Your task to perform on an android device: turn off sleep mode Image 0: 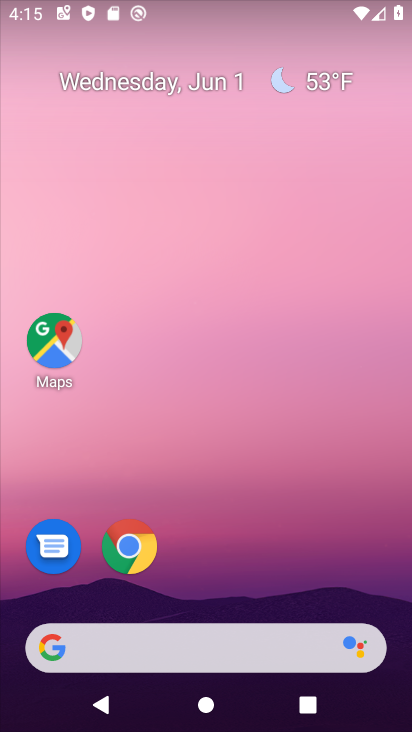
Step 0: drag from (286, 526) to (193, 131)
Your task to perform on an android device: turn off sleep mode Image 1: 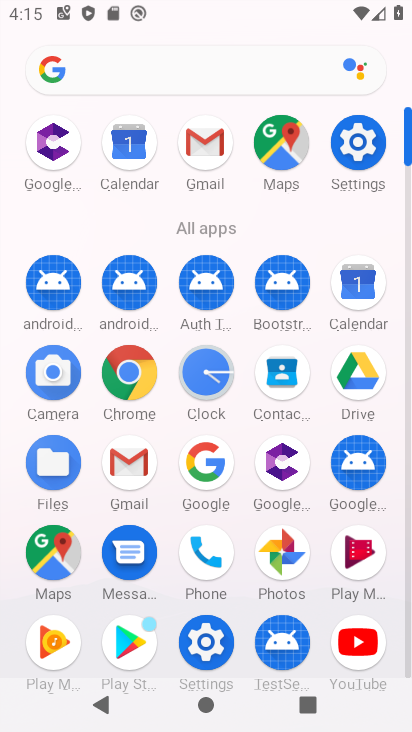
Step 1: click (344, 148)
Your task to perform on an android device: turn off sleep mode Image 2: 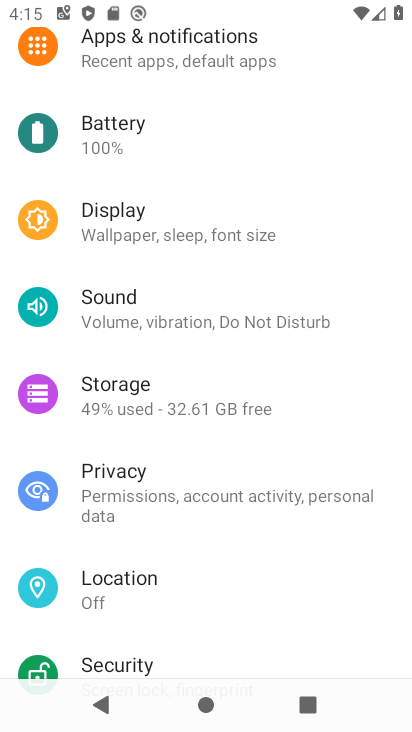
Step 2: click (144, 222)
Your task to perform on an android device: turn off sleep mode Image 3: 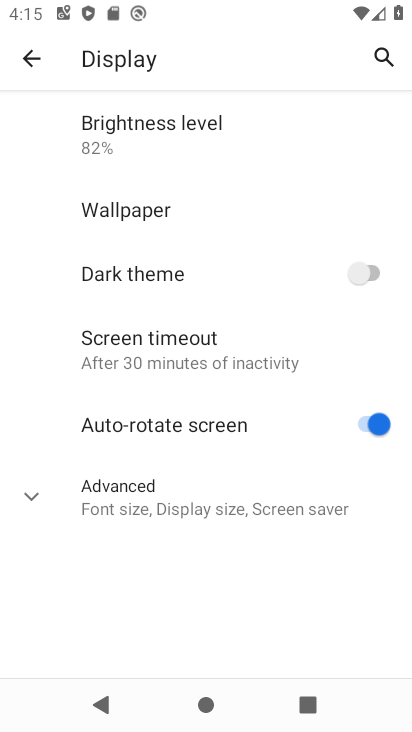
Step 3: click (117, 222)
Your task to perform on an android device: turn off sleep mode Image 4: 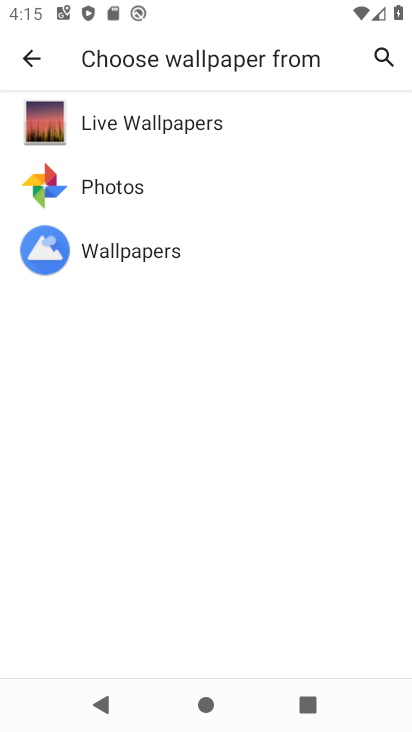
Step 4: click (25, 53)
Your task to perform on an android device: turn off sleep mode Image 5: 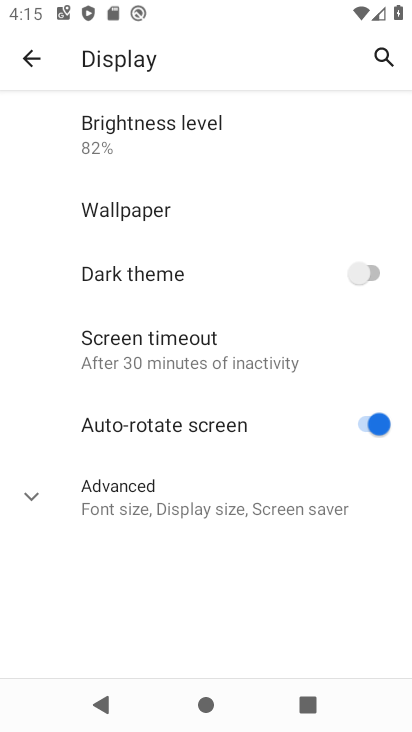
Step 5: task complete